Your task to perform on an android device: toggle notifications settings in the gmail app Image 0: 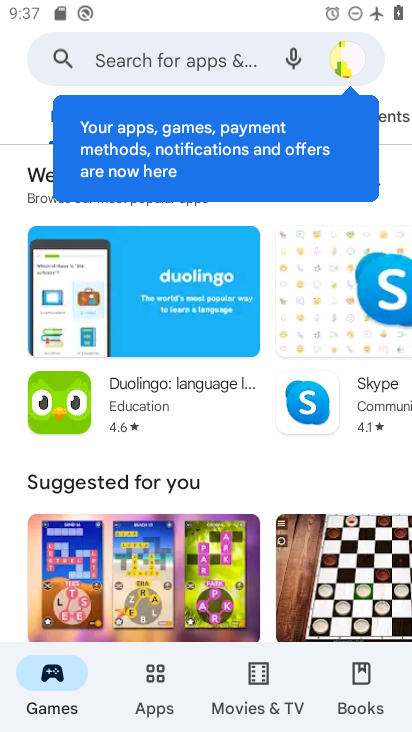
Step 0: press home button
Your task to perform on an android device: toggle notifications settings in the gmail app Image 1: 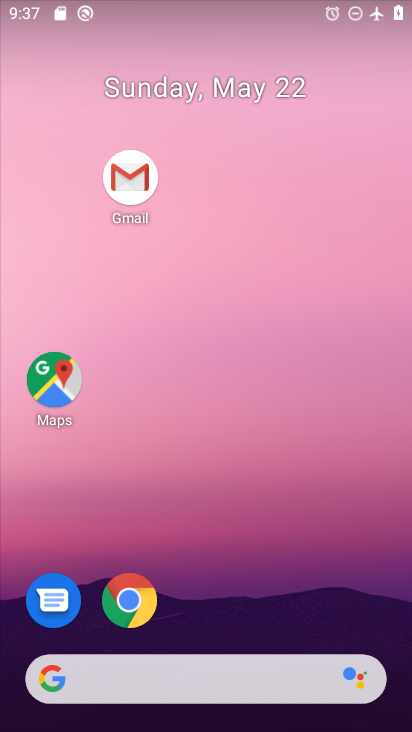
Step 1: drag from (211, 564) to (317, 3)
Your task to perform on an android device: toggle notifications settings in the gmail app Image 2: 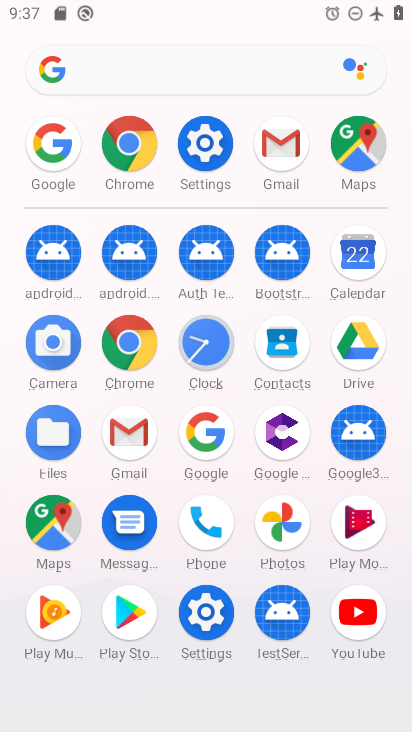
Step 2: click (133, 431)
Your task to perform on an android device: toggle notifications settings in the gmail app Image 3: 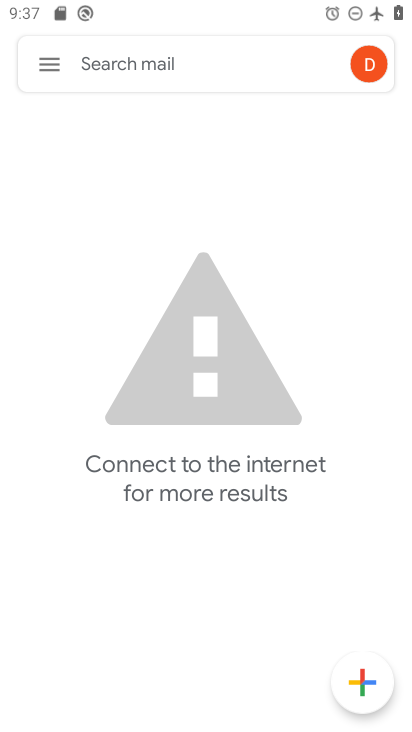
Step 3: click (55, 63)
Your task to perform on an android device: toggle notifications settings in the gmail app Image 4: 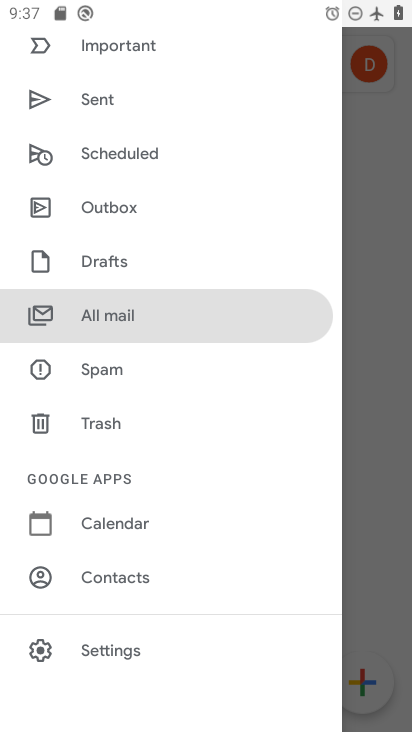
Step 4: click (98, 659)
Your task to perform on an android device: toggle notifications settings in the gmail app Image 5: 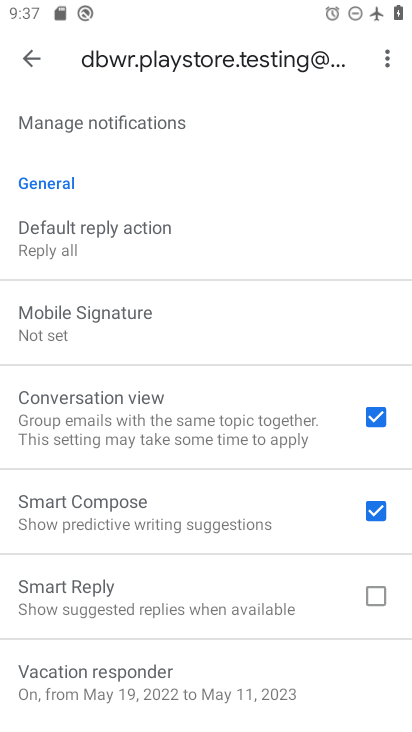
Step 5: click (37, 65)
Your task to perform on an android device: toggle notifications settings in the gmail app Image 6: 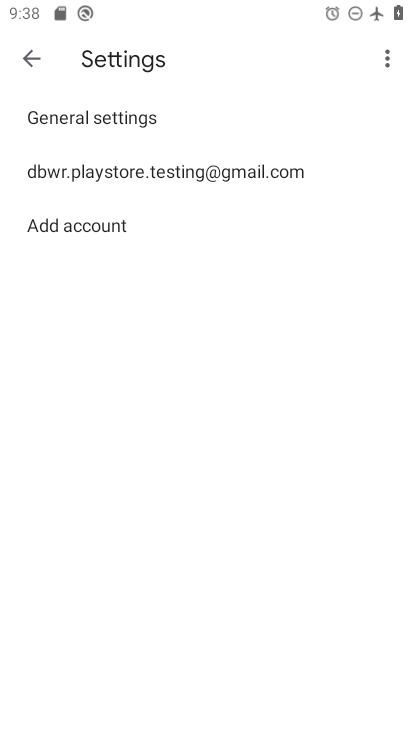
Step 6: click (121, 119)
Your task to perform on an android device: toggle notifications settings in the gmail app Image 7: 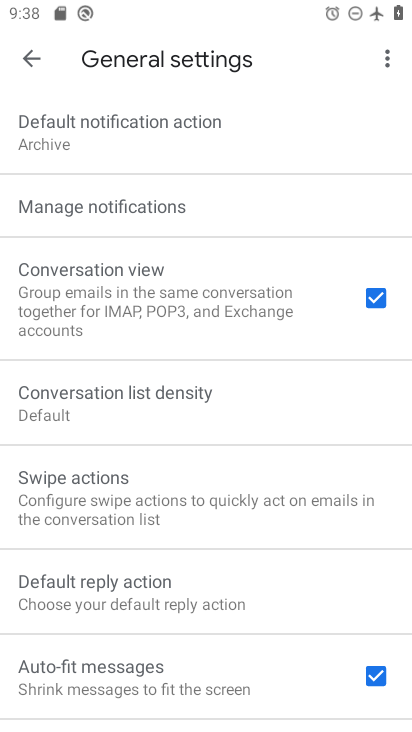
Step 7: click (145, 210)
Your task to perform on an android device: toggle notifications settings in the gmail app Image 8: 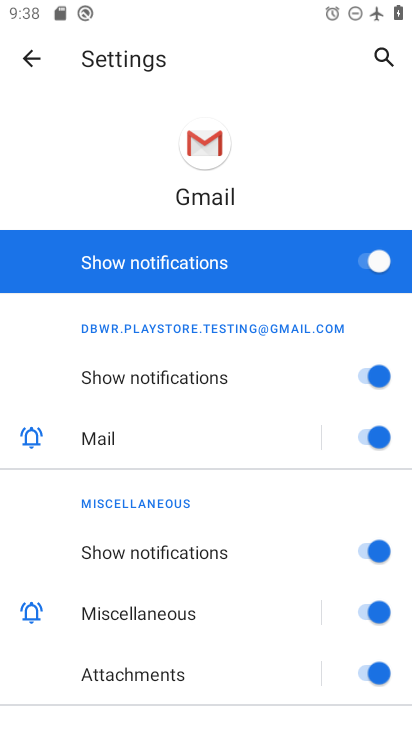
Step 8: click (352, 265)
Your task to perform on an android device: toggle notifications settings in the gmail app Image 9: 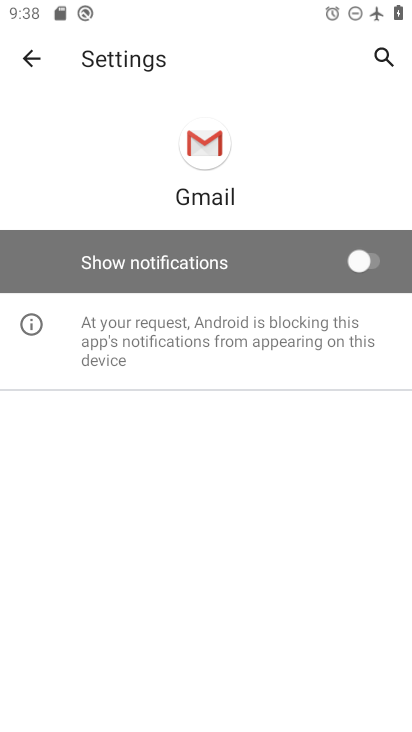
Step 9: task complete